Your task to perform on an android device: all mails in gmail Image 0: 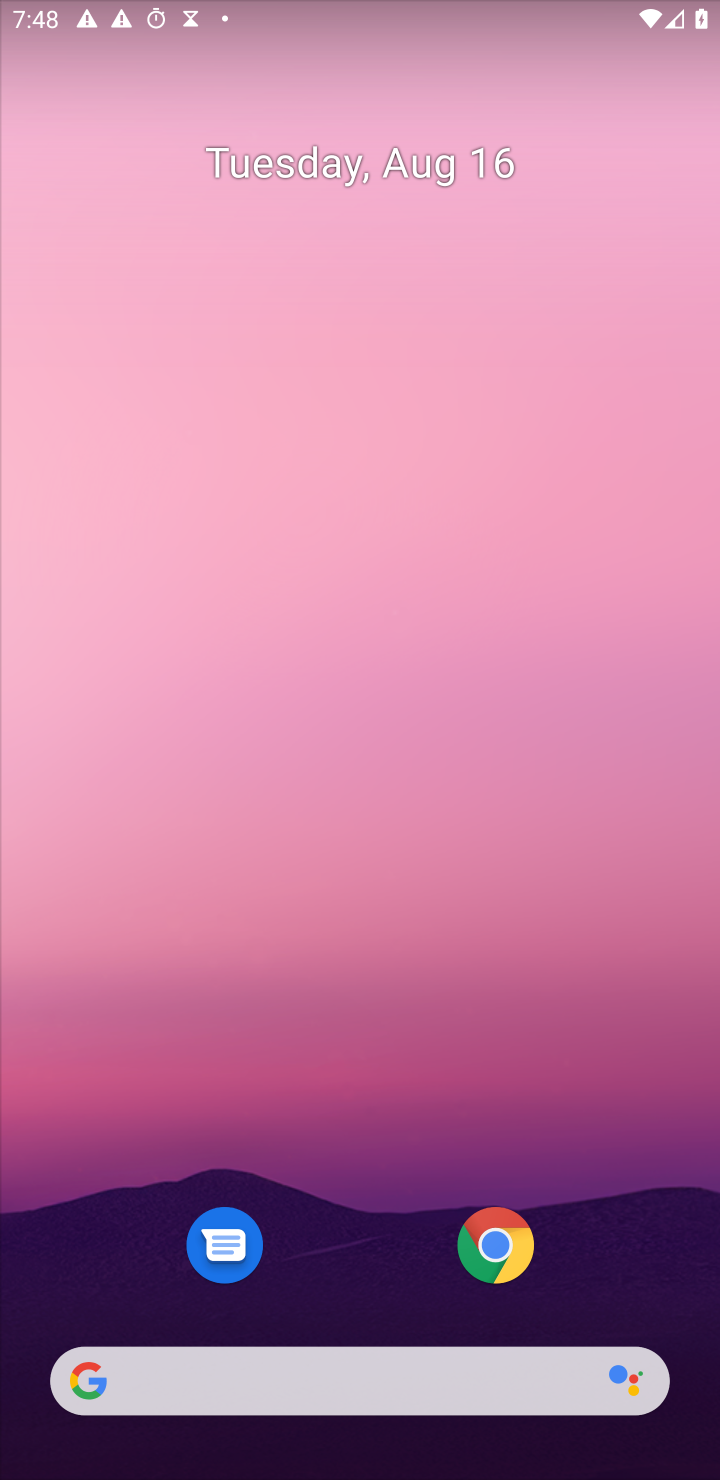
Step 0: press home button
Your task to perform on an android device: all mails in gmail Image 1: 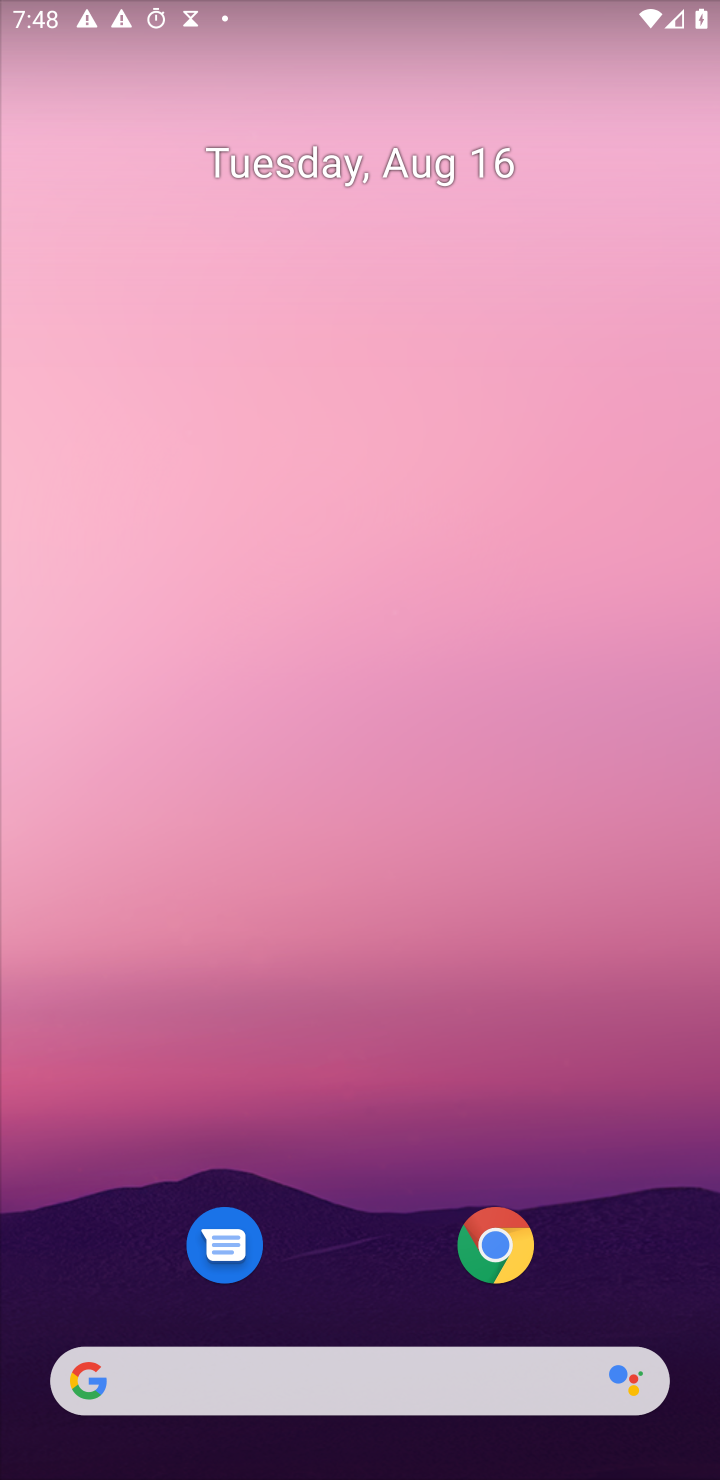
Step 1: click (273, 186)
Your task to perform on an android device: all mails in gmail Image 2: 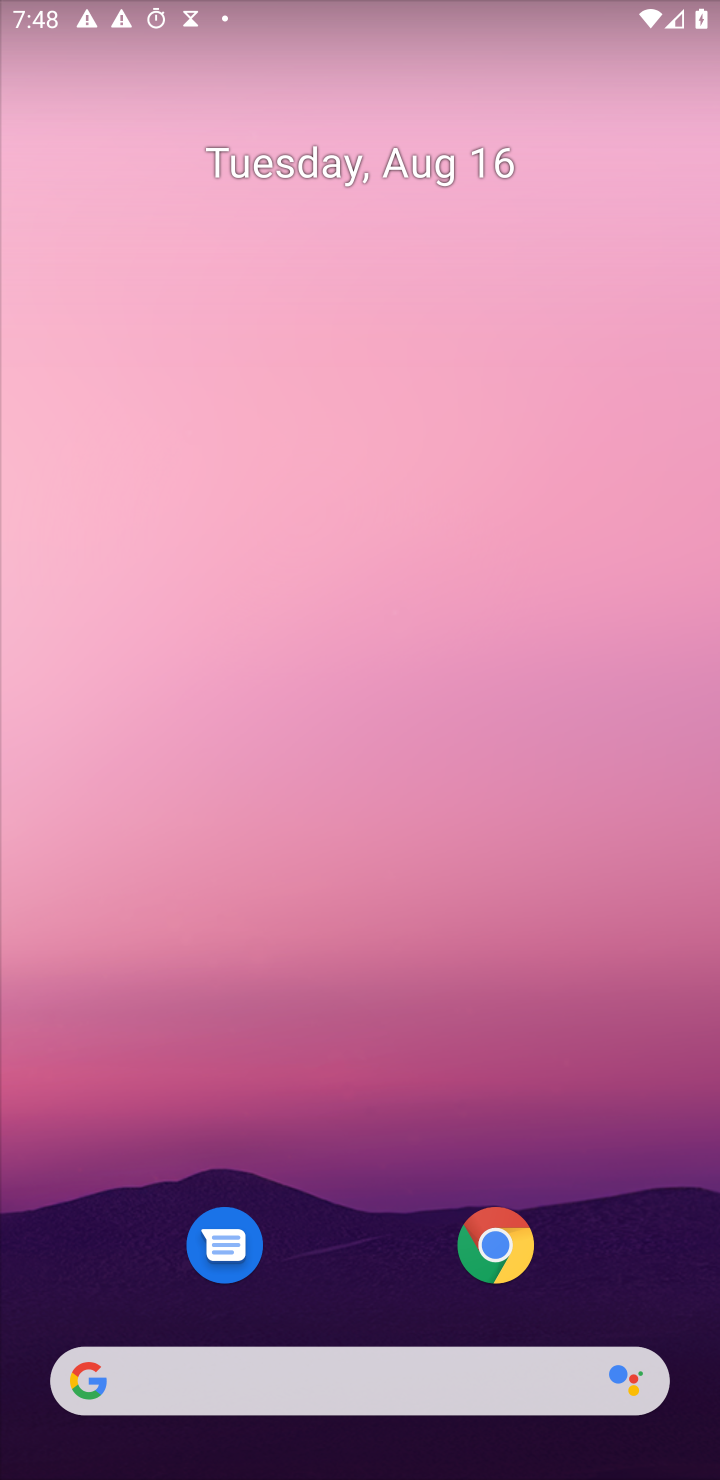
Step 2: drag from (375, 265) to (390, 37)
Your task to perform on an android device: all mails in gmail Image 3: 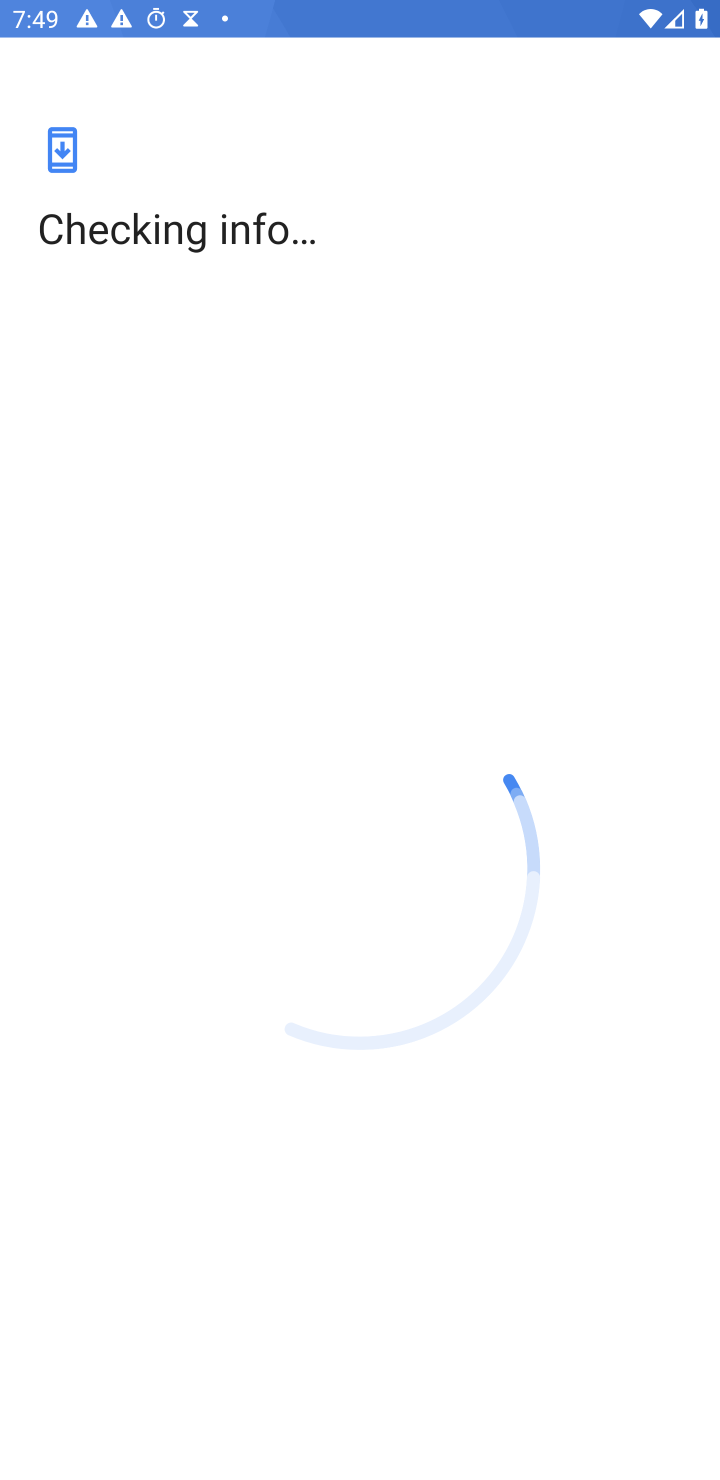
Step 3: press home button
Your task to perform on an android device: all mails in gmail Image 4: 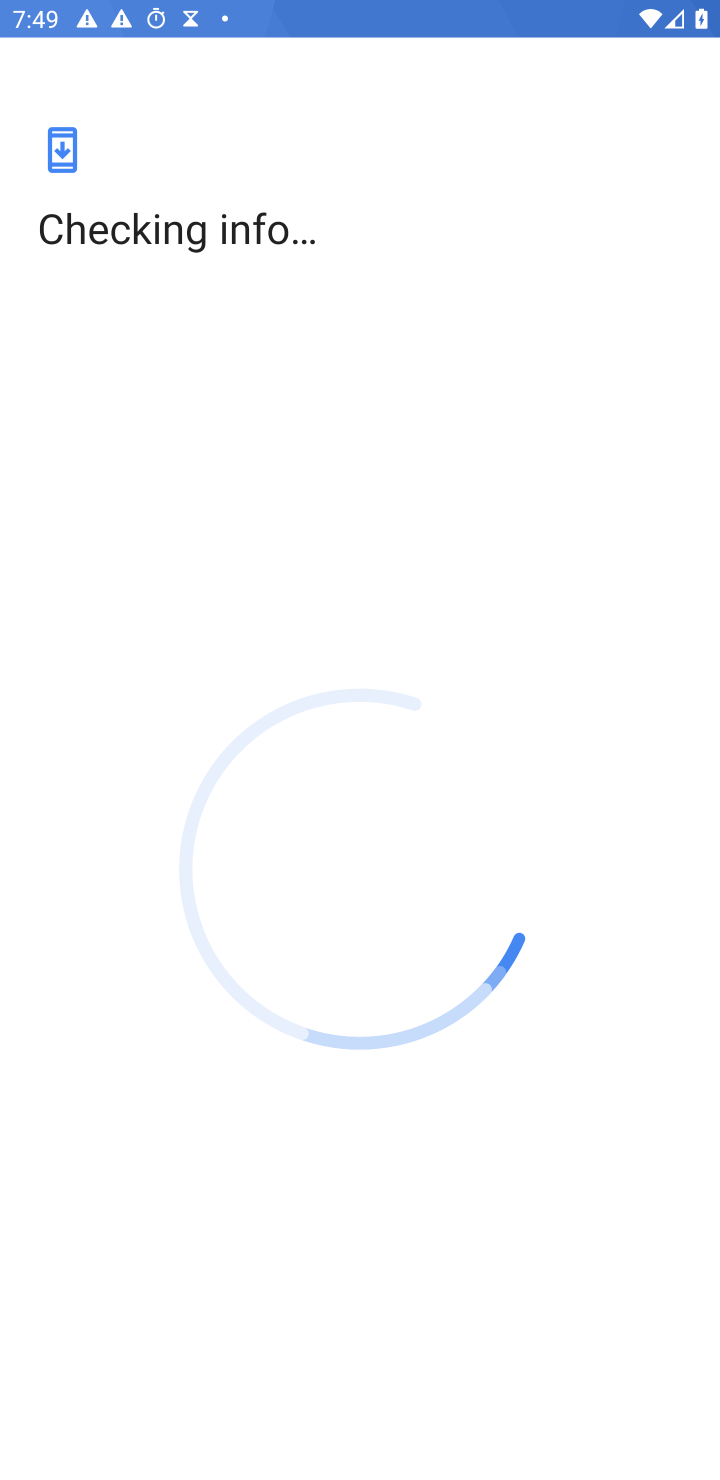
Step 4: click (699, 1102)
Your task to perform on an android device: all mails in gmail Image 5: 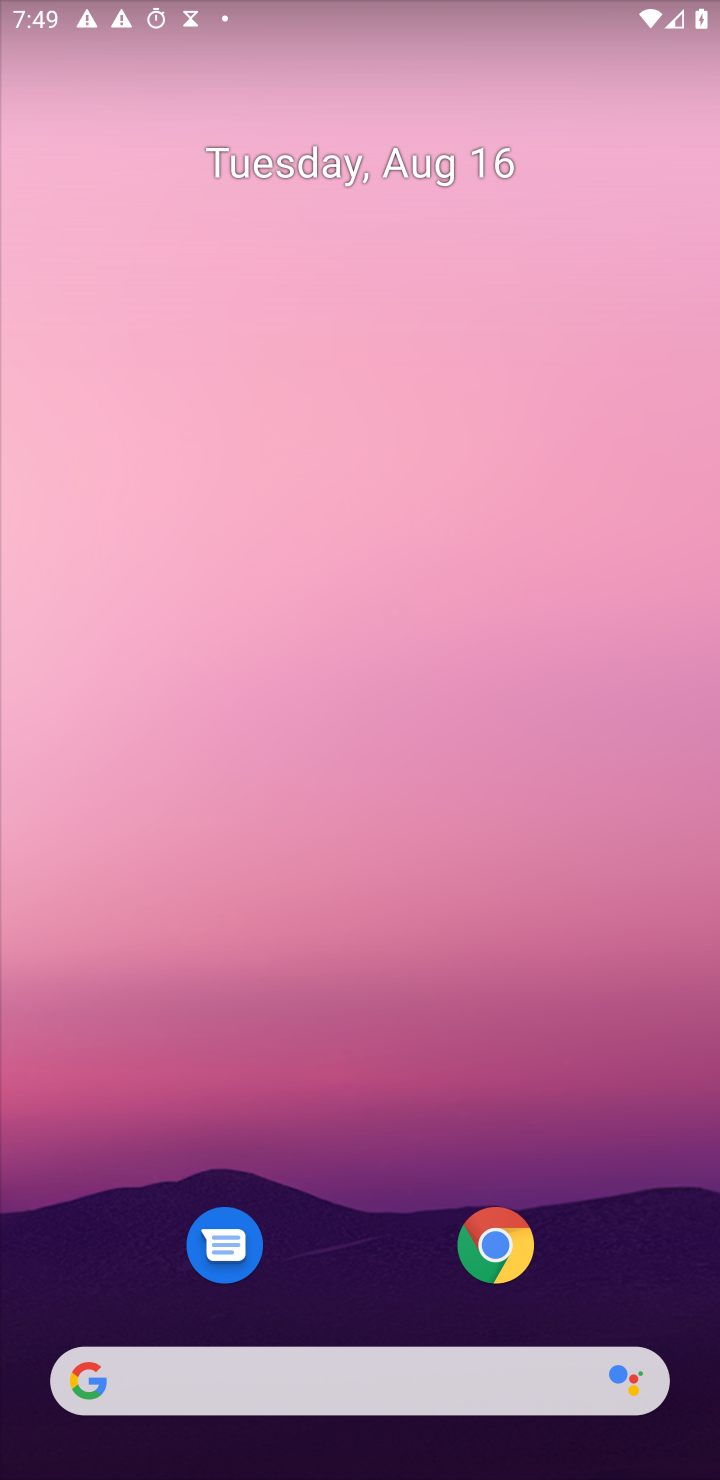
Step 5: drag from (370, 1242) to (332, 43)
Your task to perform on an android device: all mails in gmail Image 6: 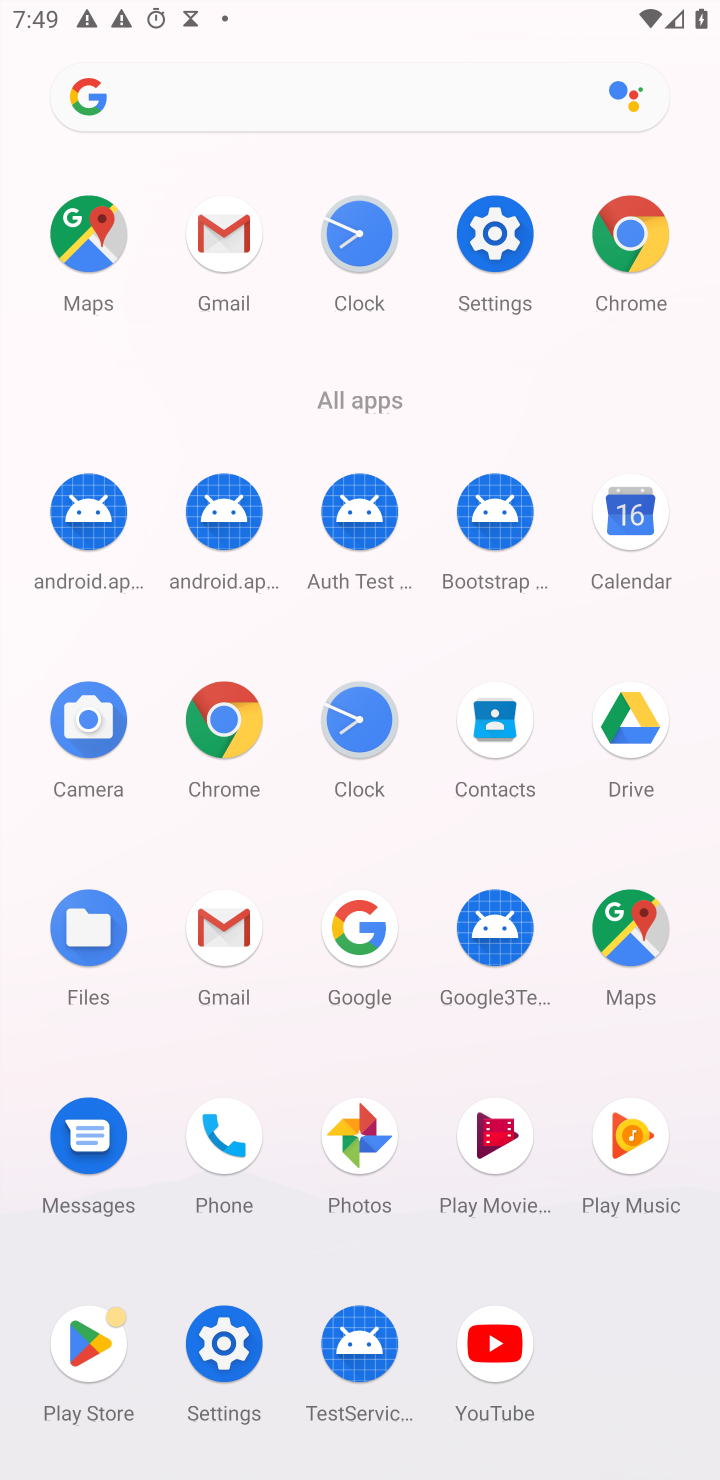
Step 6: click (235, 945)
Your task to perform on an android device: all mails in gmail Image 7: 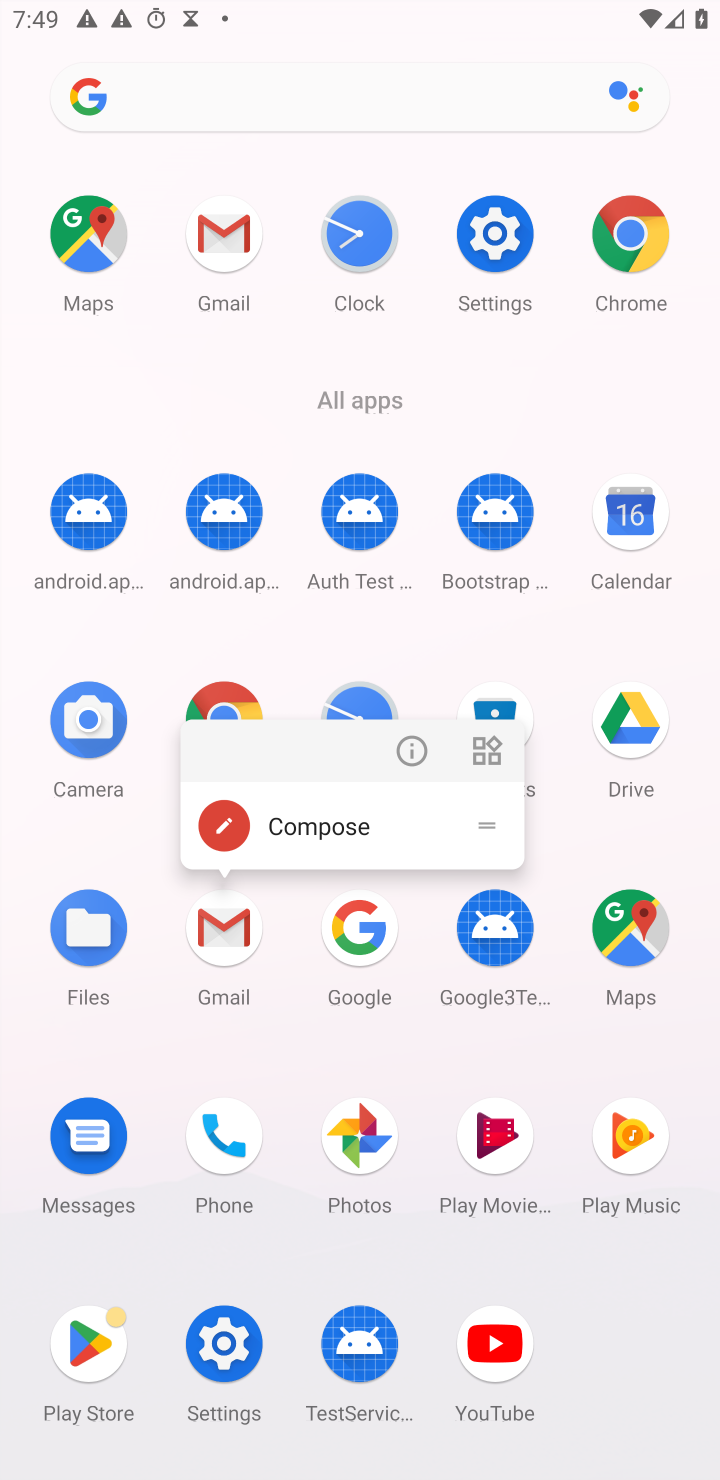
Step 7: click (224, 910)
Your task to perform on an android device: all mails in gmail Image 8: 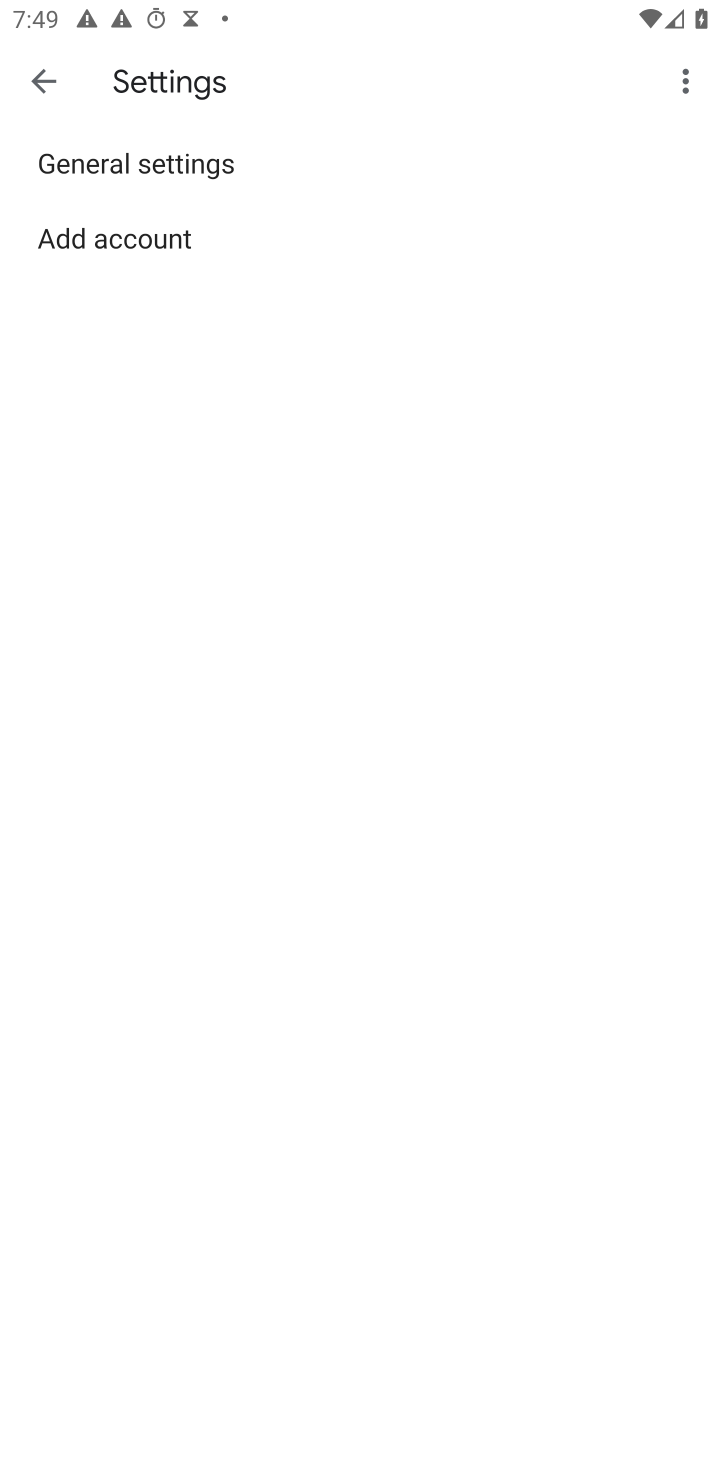
Step 8: click (36, 87)
Your task to perform on an android device: all mails in gmail Image 9: 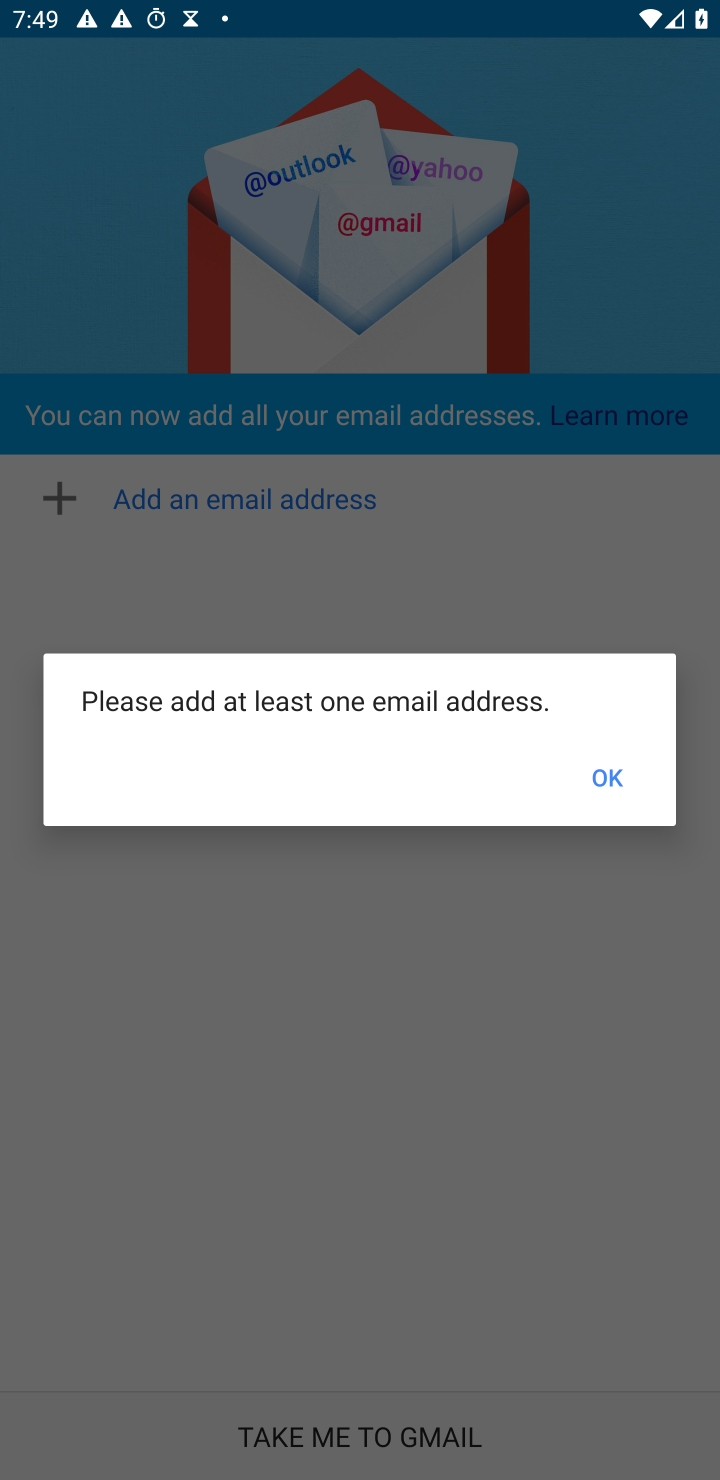
Step 9: task complete